Your task to perform on an android device: Open notification settings Image 0: 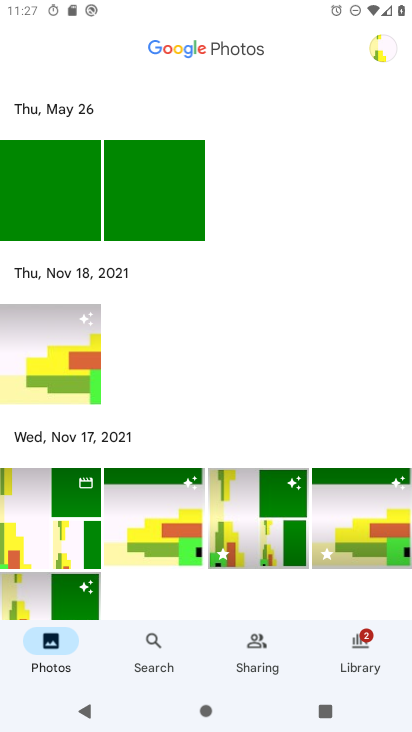
Step 0: press back button
Your task to perform on an android device: Open notification settings Image 1: 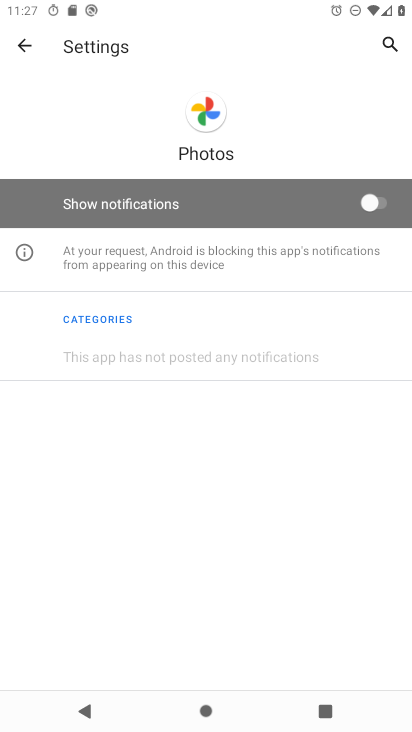
Step 1: press back button
Your task to perform on an android device: Open notification settings Image 2: 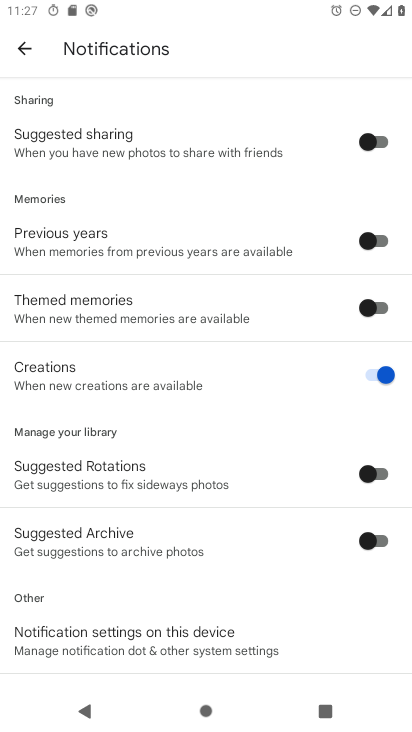
Step 2: press back button
Your task to perform on an android device: Open notification settings Image 3: 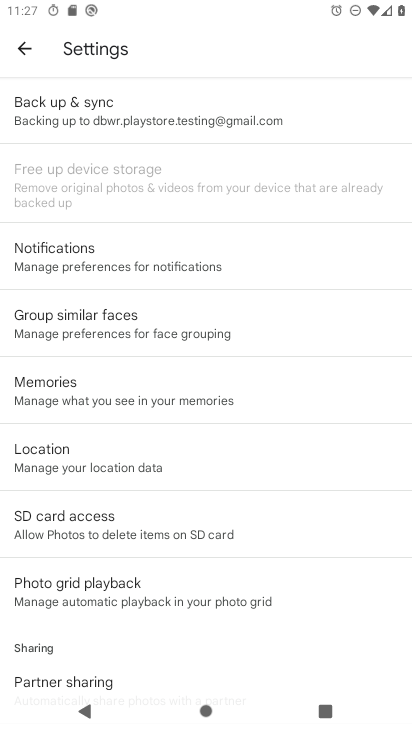
Step 3: press home button
Your task to perform on an android device: Open notification settings Image 4: 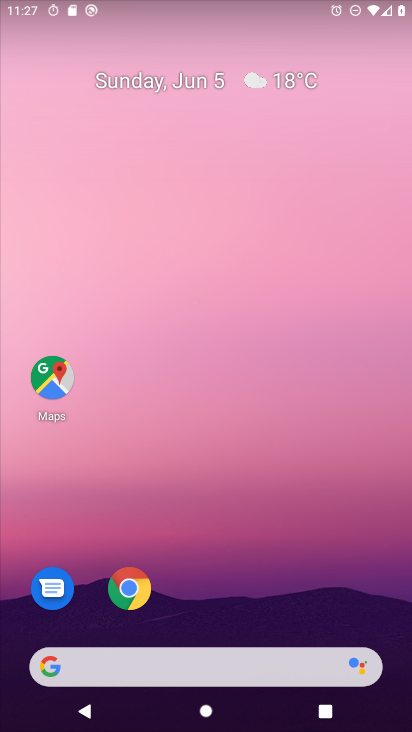
Step 4: drag from (363, 598) to (351, 178)
Your task to perform on an android device: Open notification settings Image 5: 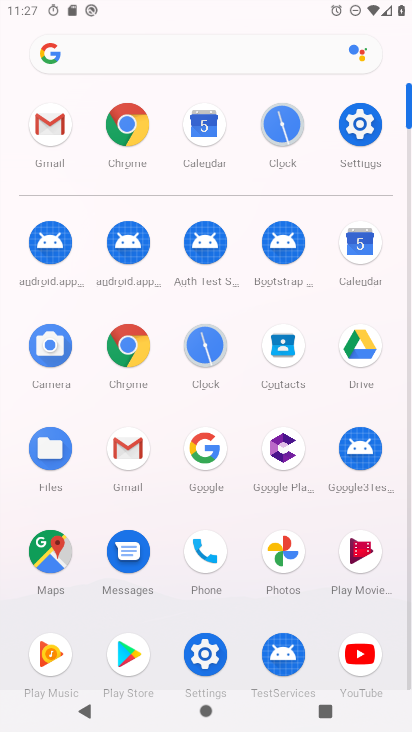
Step 5: click (348, 135)
Your task to perform on an android device: Open notification settings Image 6: 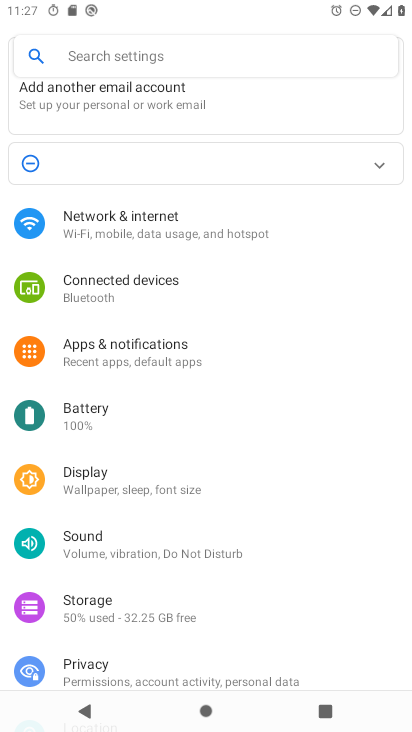
Step 6: drag from (344, 520) to (343, 409)
Your task to perform on an android device: Open notification settings Image 7: 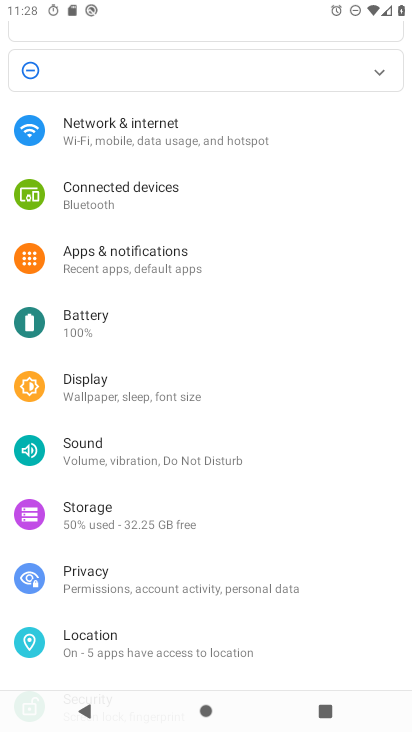
Step 7: drag from (333, 533) to (325, 387)
Your task to perform on an android device: Open notification settings Image 8: 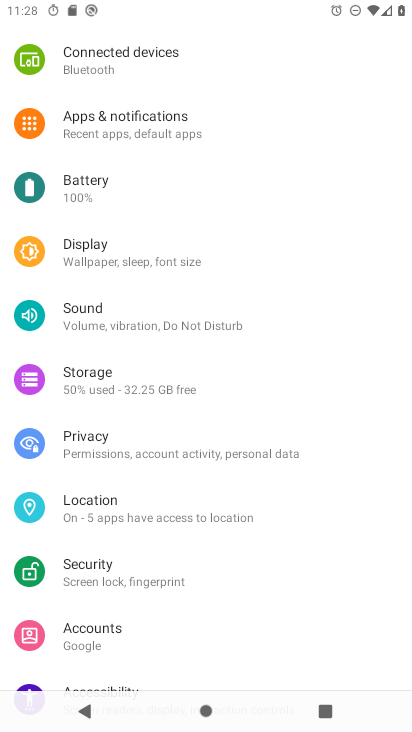
Step 8: drag from (337, 542) to (328, 396)
Your task to perform on an android device: Open notification settings Image 9: 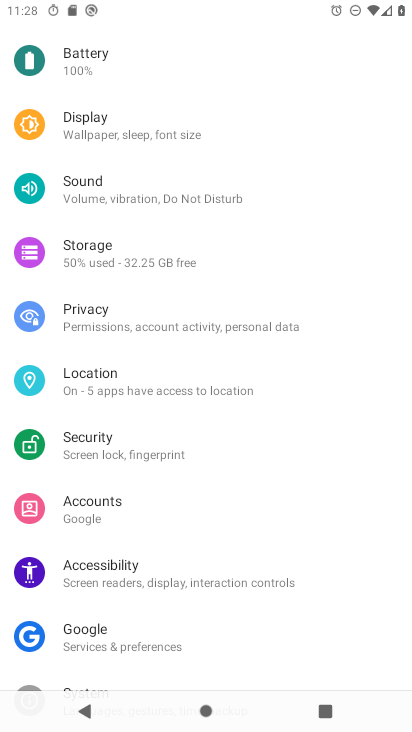
Step 9: drag from (324, 533) to (325, 392)
Your task to perform on an android device: Open notification settings Image 10: 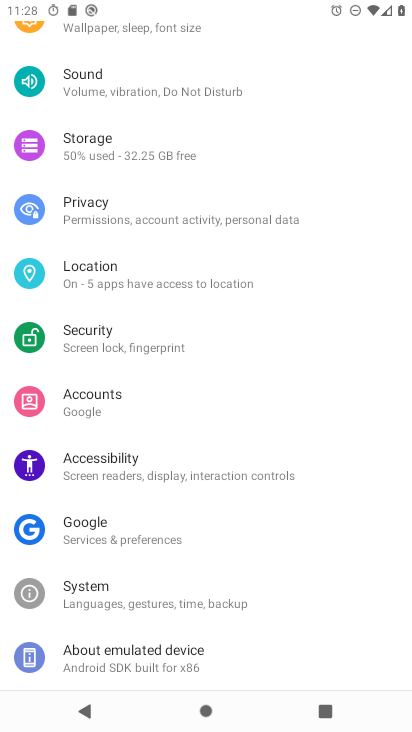
Step 10: drag from (327, 488) to (312, 342)
Your task to perform on an android device: Open notification settings Image 11: 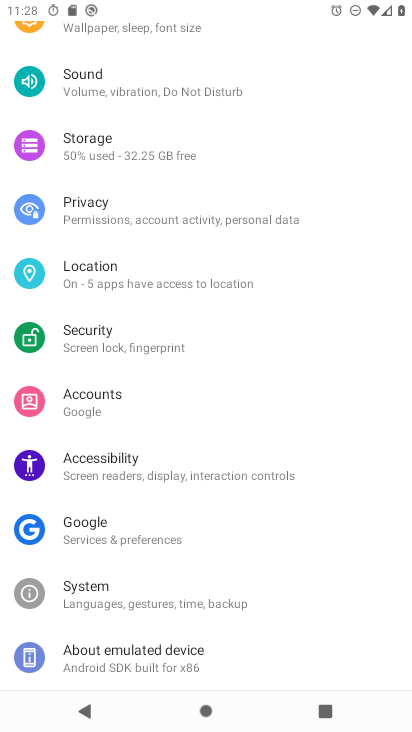
Step 11: drag from (322, 309) to (326, 459)
Your task to perform on an android device: Open notification settings Image 12: 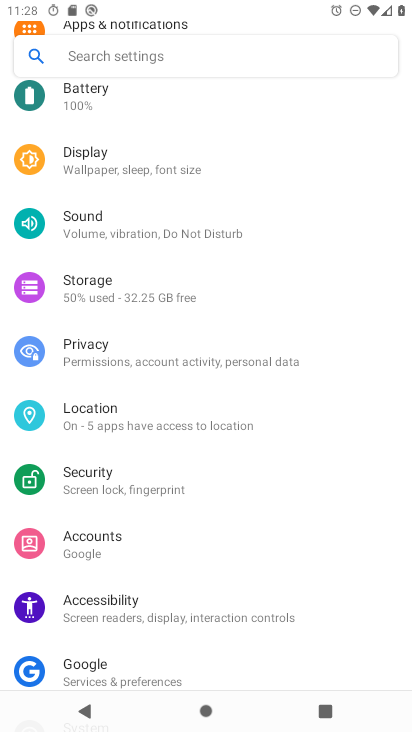
Step 12: drag from (325, 269) to (326, 457)
Your task to perform on an android device: Open notification settings Image 13: 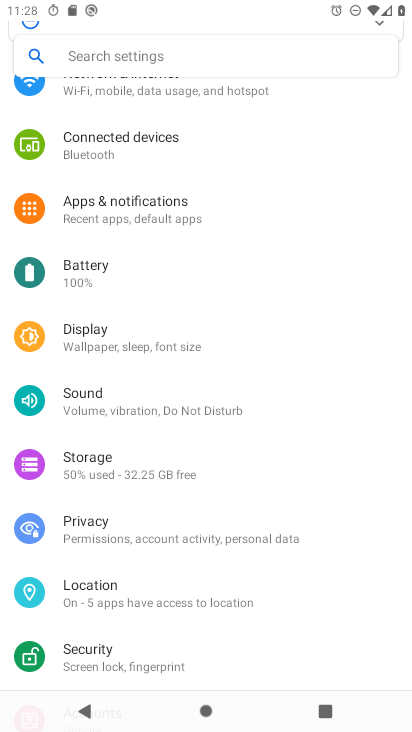
Step 13: drag from (325, 260) to (344, 434)
Your task to perform on an android device: Open notification settings Image 14: 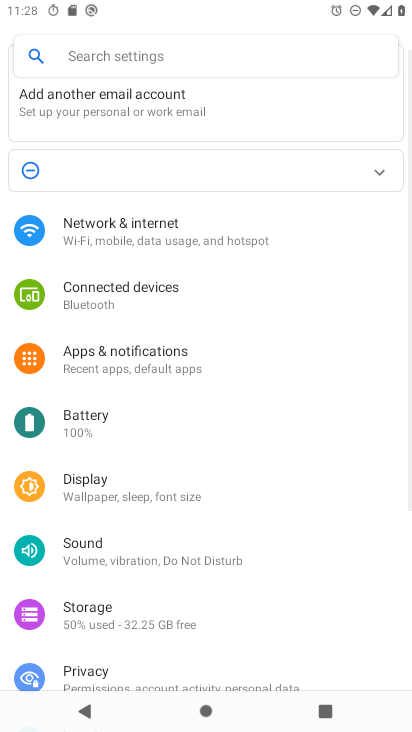
Step 14: click (172, 348)
Your task to perform on an android device: Open notification settings Image 15: 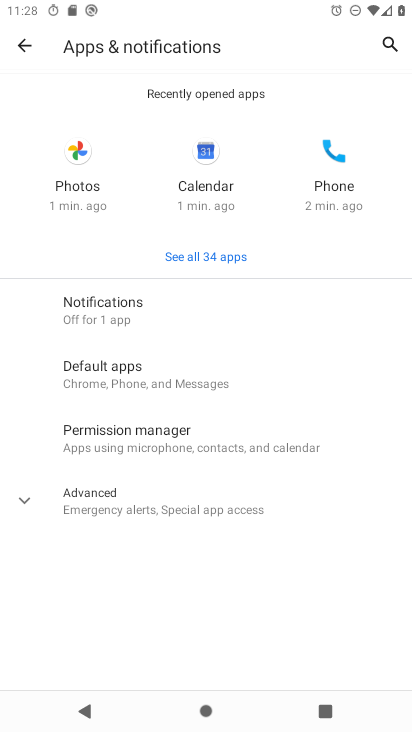
Step 15: click (149, 305)
Your task to perform on an android device: Open notification settings Image 16: 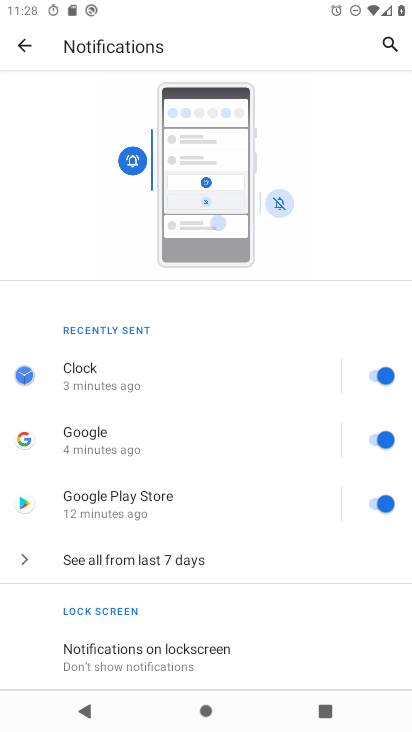
Step 16: task complete